Your task to perform on an android device: Go to Google maps Image 0: 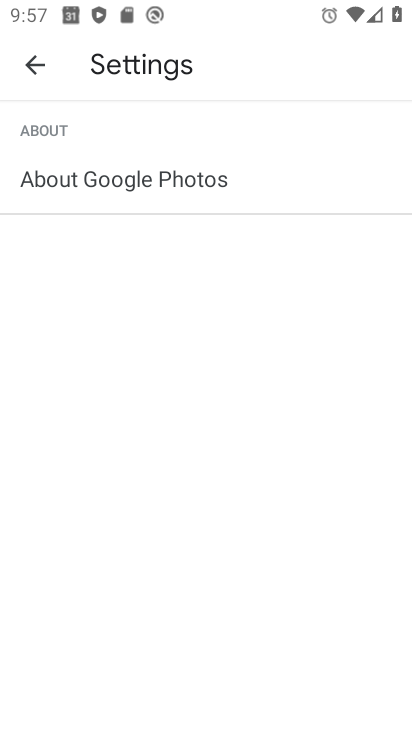
Step 0: press home button
Your task to perform on an android device: Go to Google maps Image 1: 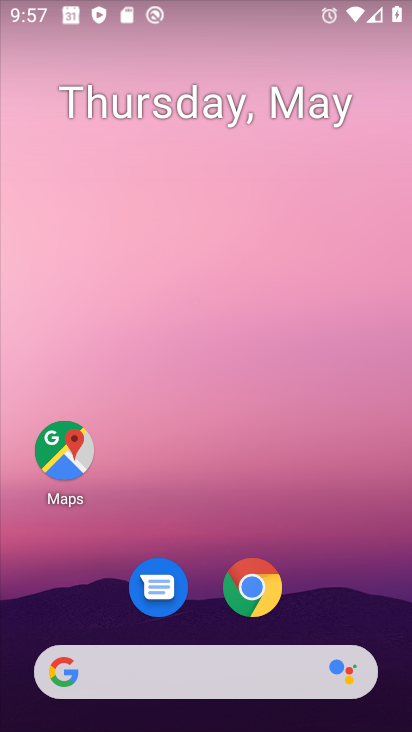
Step 1: drag from (386, 649) to (256, 33)
Your task to perform on an android device: Go to Google maps Image 2: 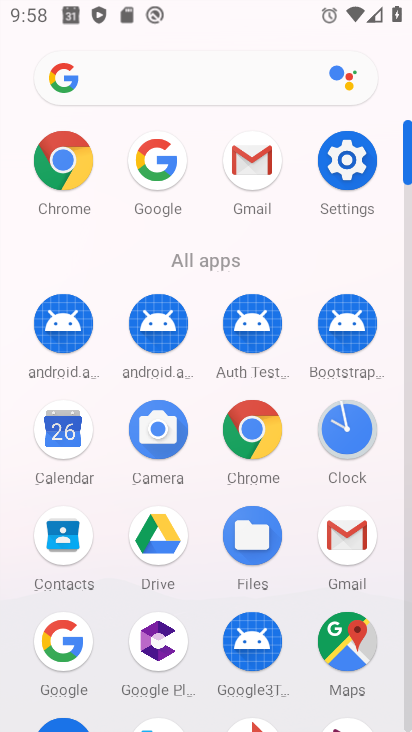
Step 2: click (354, 660)
Your task to perform on an android device: Go to Google maps Image 3: 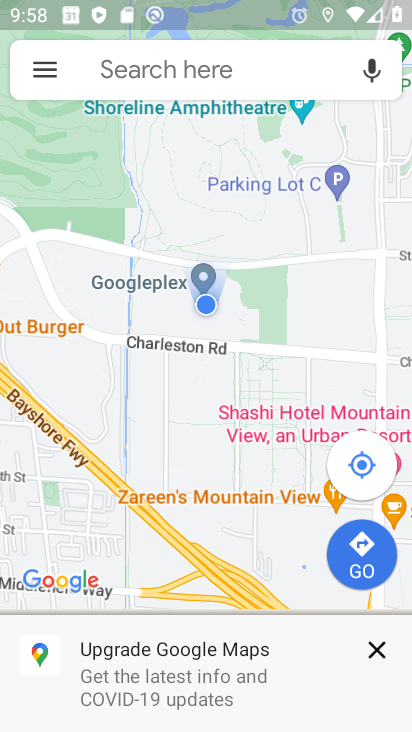
Step 3: task complete